Your task to perform on an android device: Search for sushi restaurants on Maps Image 0: 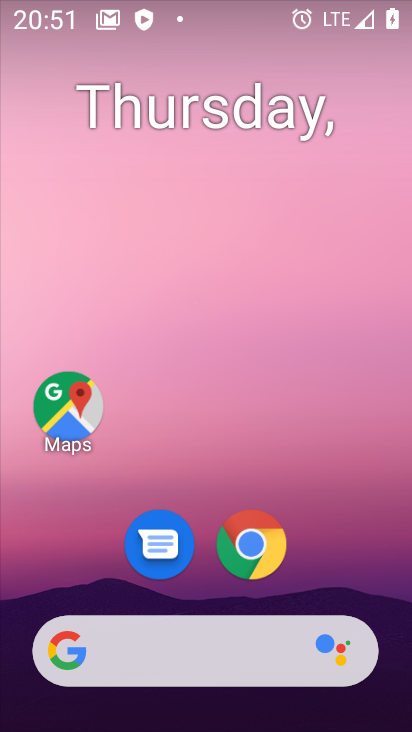
Step 0: click (52, 399)
Your task to perform on an android device: Search for sushi restaurants on Maps Image 1: 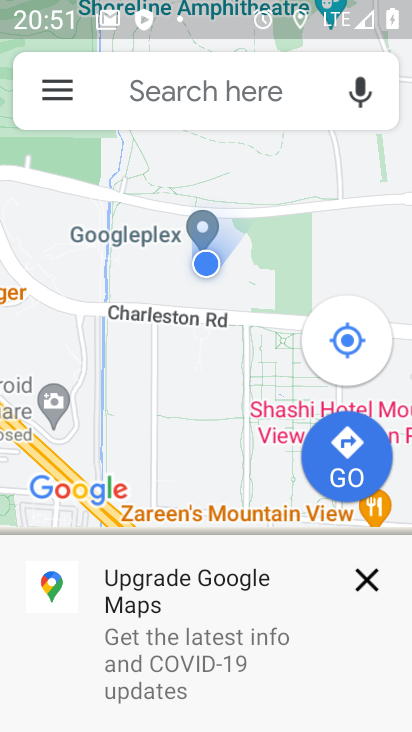
Step 1: click (179, 100)
Your task to perform on an android device: Search for sushi restaurants on Maps Image 2: 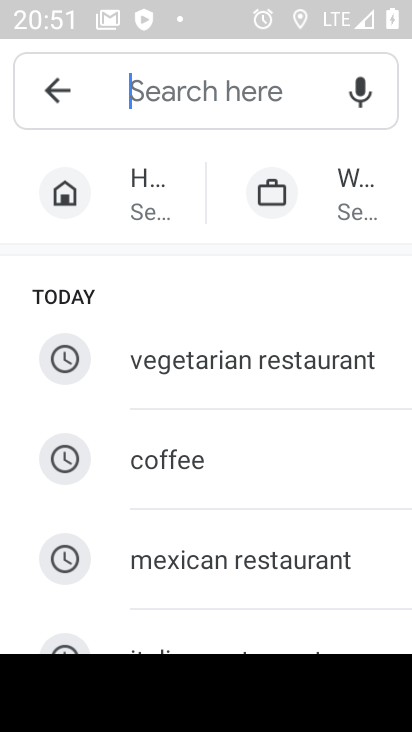
Step 2: type "sushi restaurant"
Your task to perform on an android device: Search for sushi restaurants on Maps Image 3: 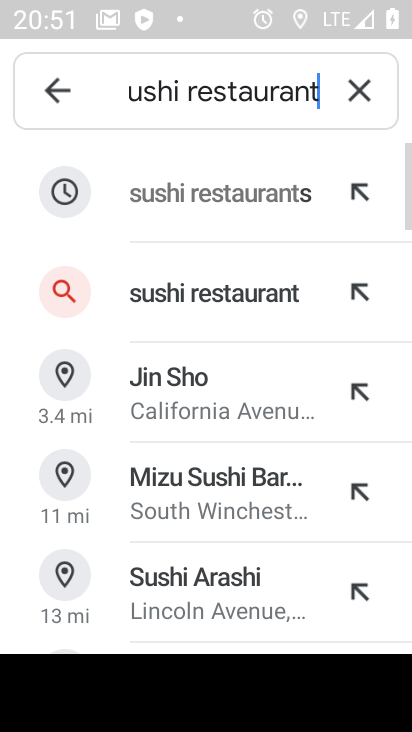
Step 3: click (126, 283)
Your task to perform on an android device: Search for sushi restaurants on Maps Image 4: 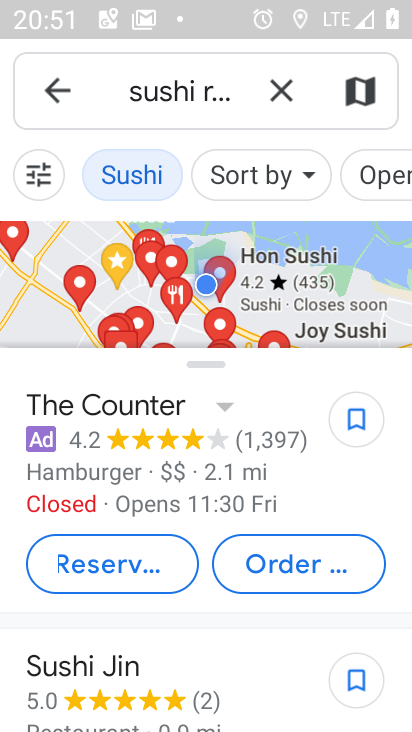
Step 4: task complete